Your task to perform on an android device: delete browsing data in the chrome app Image 0: 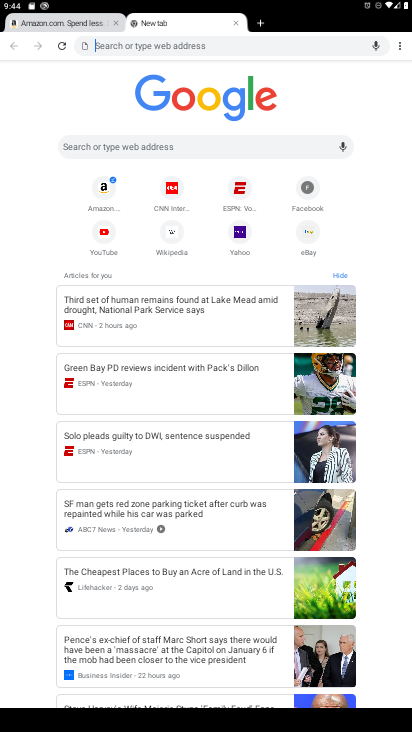
Step 0: press home button
Your task to perform on an android device: delete browsing data in the chrome app Image 1: 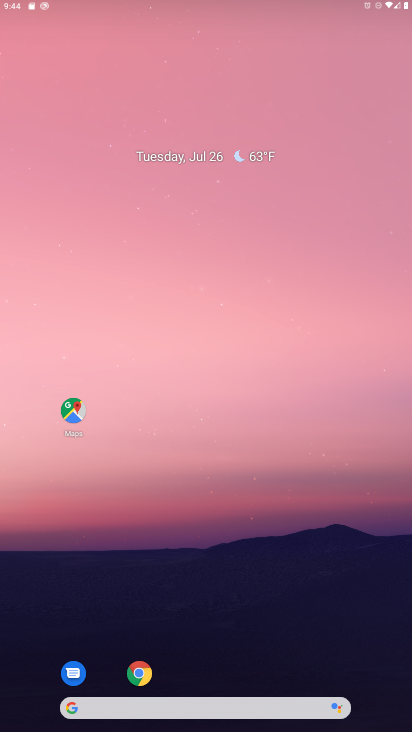
Step 1: drag from (392, 667) to (169, 35)
Your task to perform on an android device: delete browsing data in the chrome app Image 2: 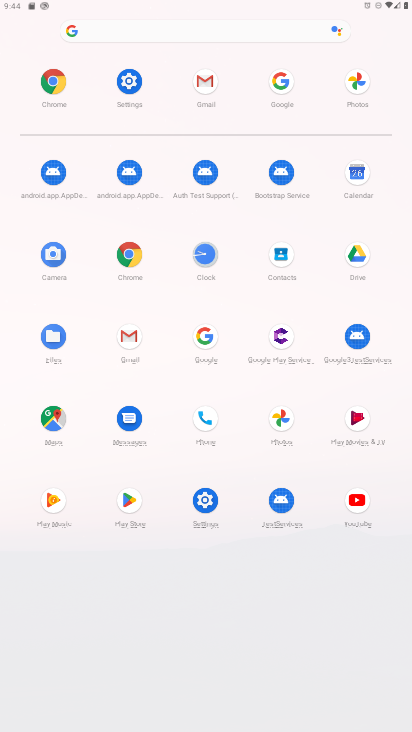
Step 2: click (130, 258)
Your task to perform on an android device: delete browsing data in the chrome app Image 3: 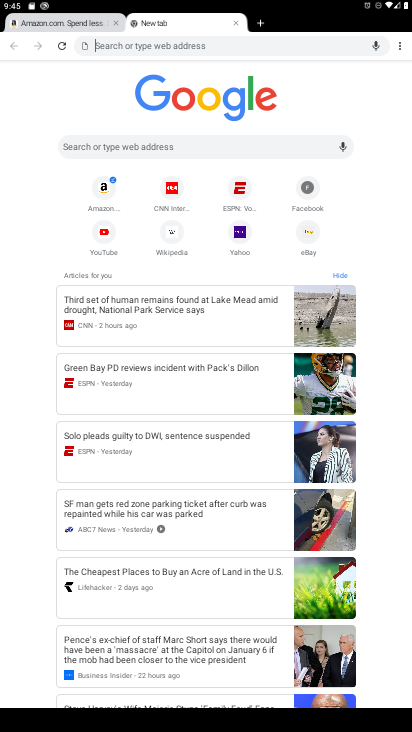
Step 3: click (399, 43)
Your task to perform on an android device: delete browsing data in the chrome app Image 4: 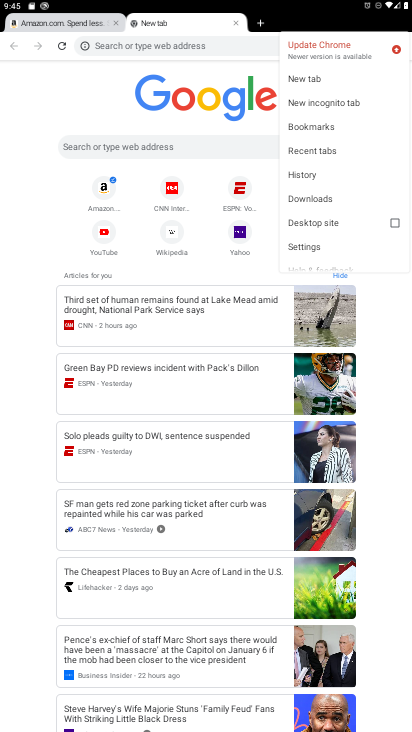
Step 4: click (312, 176)
Your task to perform on an android device: delete browsing data in the chrome app Image 5: 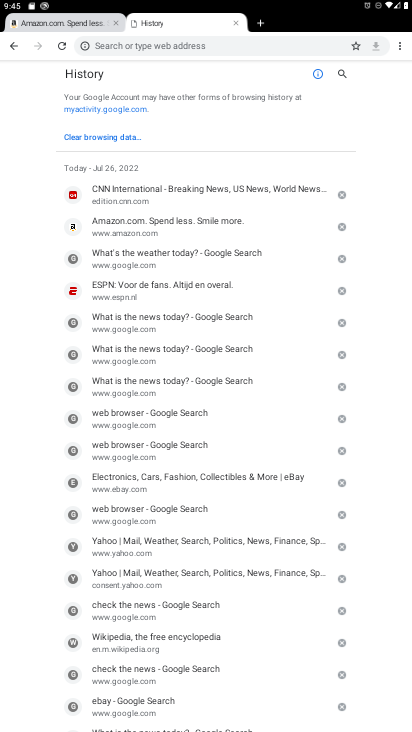
Step 5: click (76, 132)
Your task to perform on an android device: delete browsing data in the chrome app Image 6: 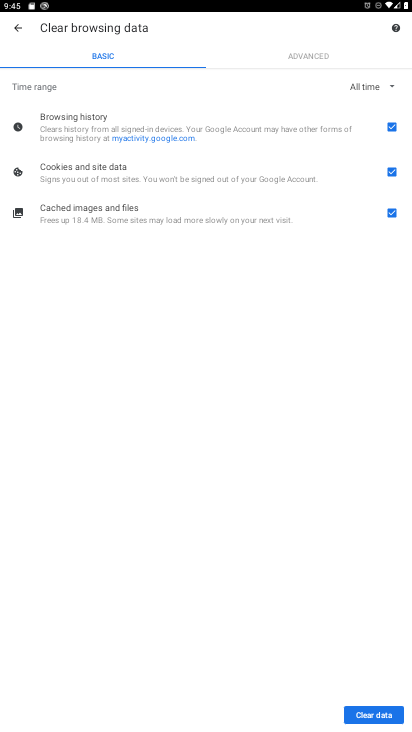
Step 6: click (375, 721)
Your task to perform on an android device: delete browsing data in the chrome app Image 7: 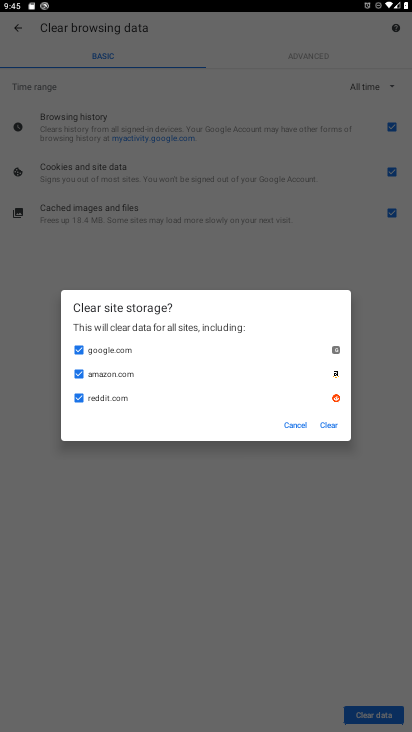
Step 7: click (325, 430)
Your task to perform on an android device: delete browsing data in the chrome app Image 8: 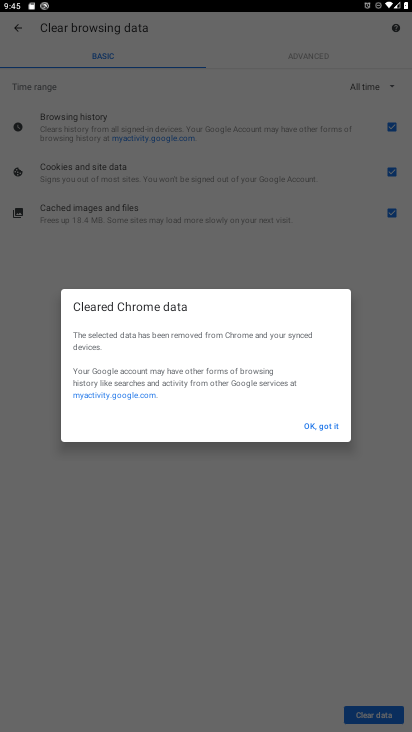
Step 8: click (325, 423)
Your task to perform on an android device: delete browsing data in the chrome app Image 9: 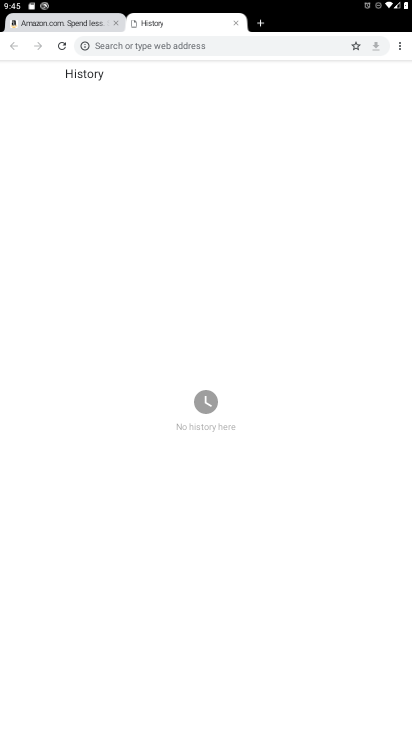
Step 9: task complete